Your task to perform on an android device: find snoozed emails in the gmail app Image 0: 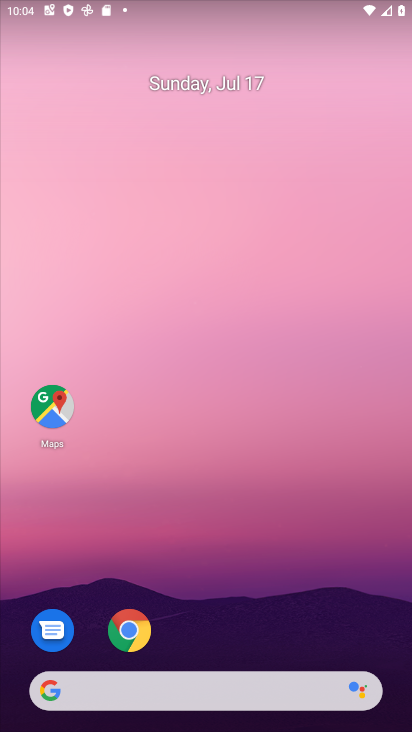
Step 0: drag from (304, 644) to (331, 280)
Your task to perform on an android device: find snoozed emails in the gmail app Image 1: 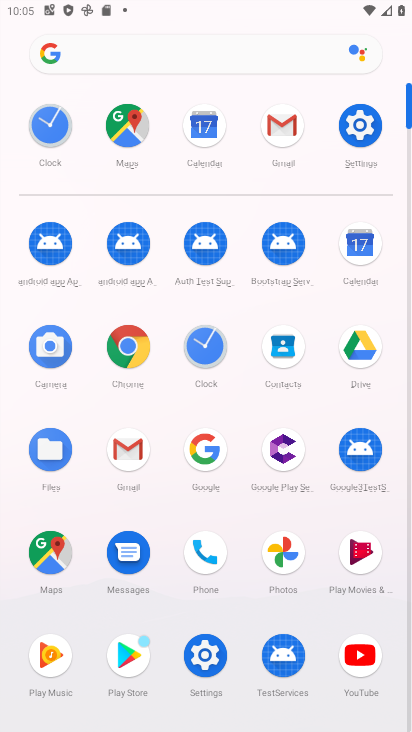
Step 1: click (293, 146)
Your task to perform on an android device: find snoozed emails in the gmail app Image 2: 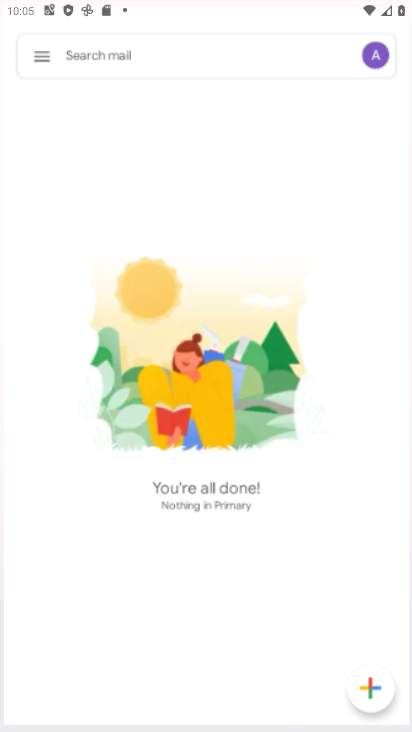
Step 2: task complete